Your task to perform on an android device: turn on the 24-hour format for clock Image 0: 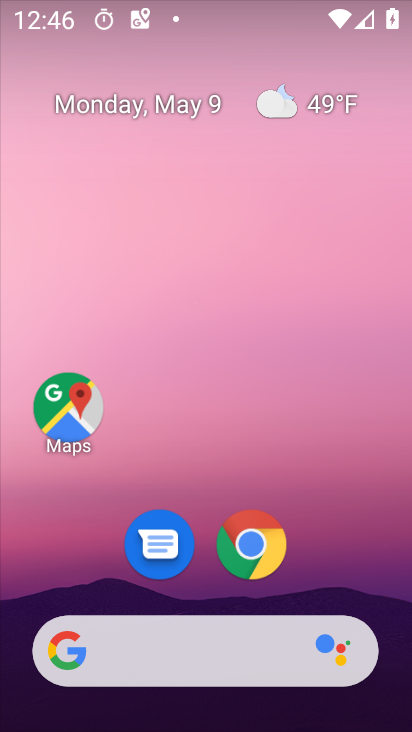
Step 0: drag from (343, 607) to (276, 18)
Your task to perform on an android device: turn on the 24-hour format for clock Image 1: 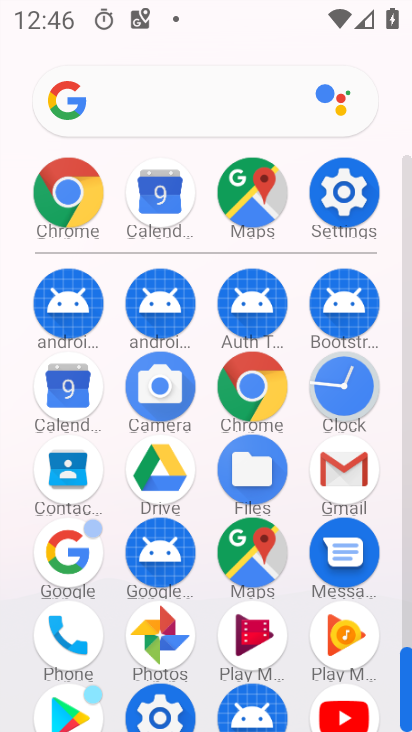
Step 1: click (355, 458)
Your task to perform on an android device: turn on the 24-hour format for clock Image 2: 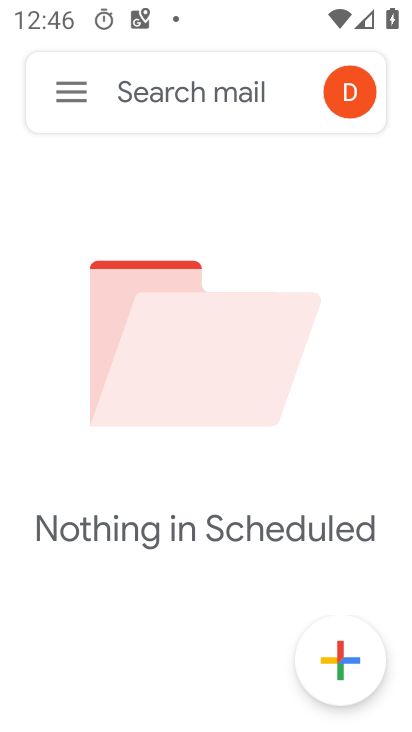
Step 2: press home button
Your task to perform on an android device: turn on the 24-hour format for clock Image 3: 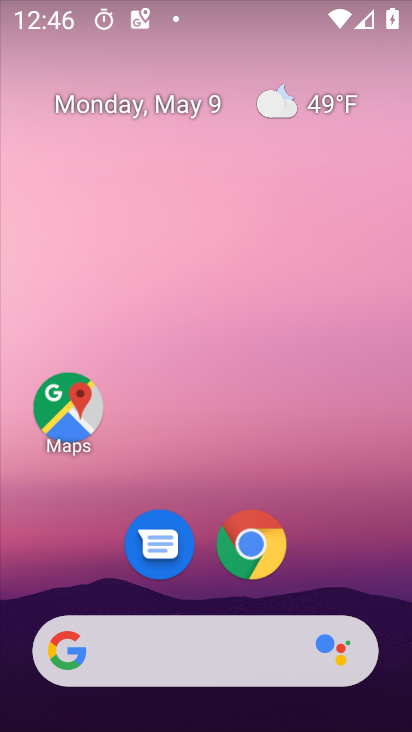
Step 3: drag from (271, 620) to (297, 25)
Your task to perform on an android device: turn on the 24-hour format for clock Image 4: 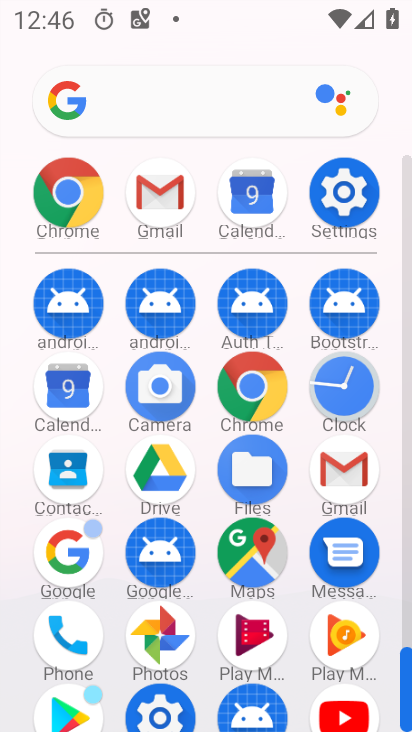
Step 4: click (356, 401)
Your task to perform on an android device: turn on the 24-hour format for clock Image 5: 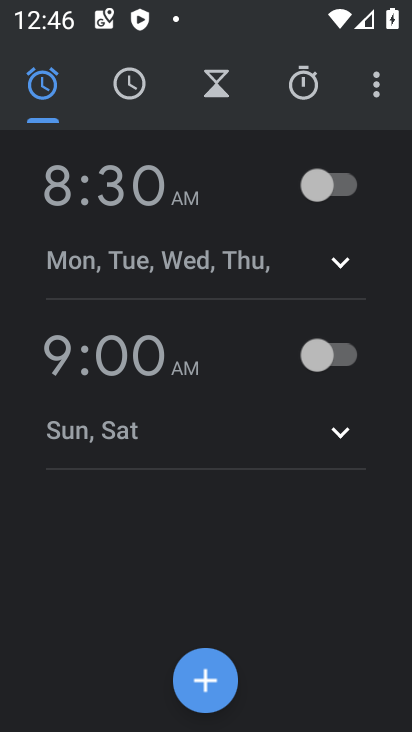
Step 5: click (378, 72)
Your task to perform on an android device: turn on the 24-hour format for clock Image 6: 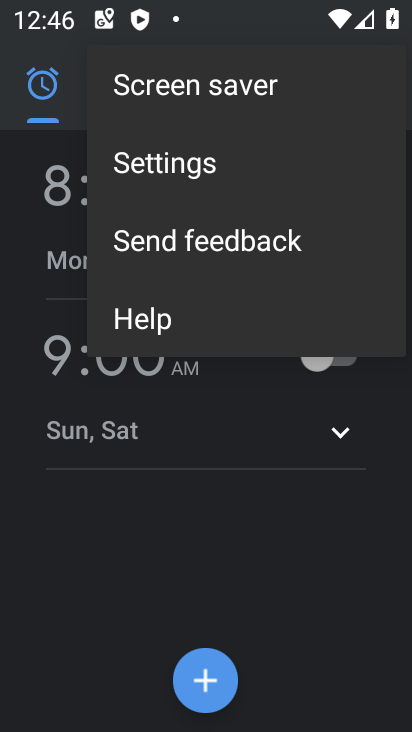
Step 6: click (207, 157)
Your task to perform on an android device: turn on the 24-hour format for clock Image 7: 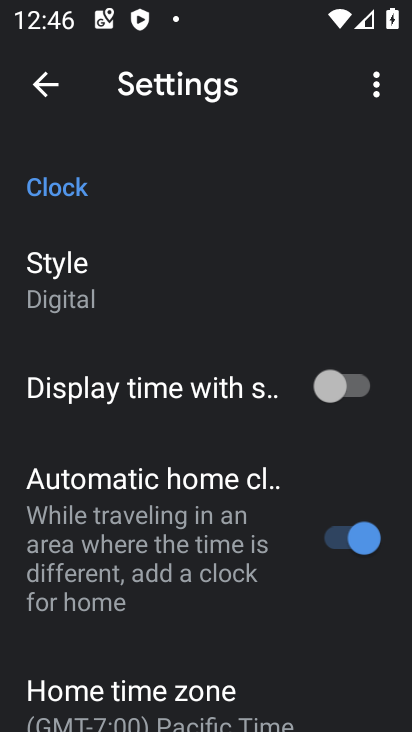
Step 7: drag from (375, 86) to (280, 296)
Your task to perform on an android device: turn on the 24-hour format for clock Image 8: 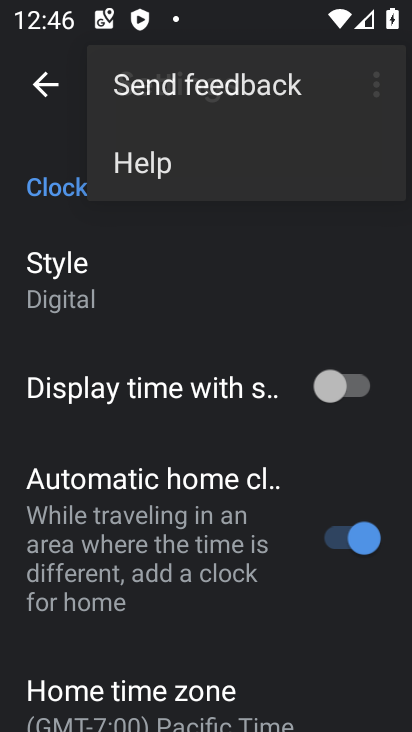
Step 8: click (245, 299)
Your task to perform on an android device: turn on the 24-hour format for clock Image 9: 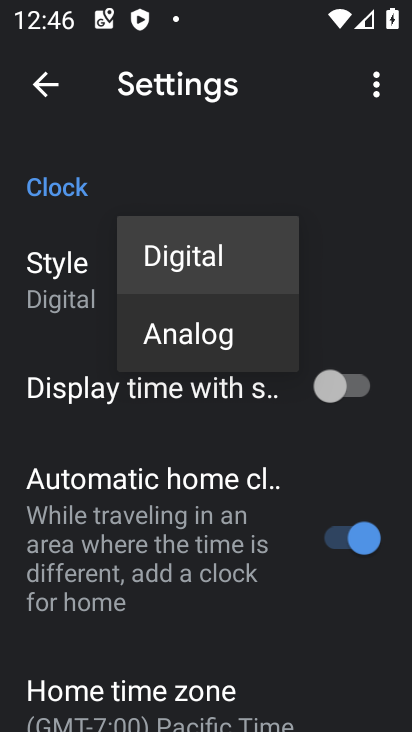
Step 9: click (362, 235)
Your task to perform on an android device: turn on the 24-hour format for clock Image 10: 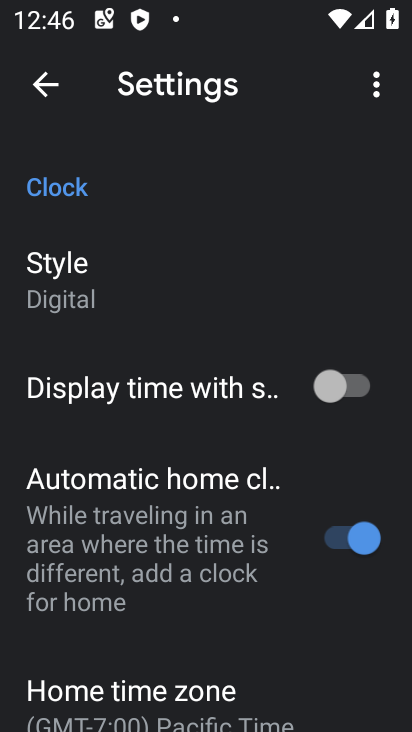
Step 10: drag from (205, 624) to (218, 81)
Your task to perform on an android device: turn on the 24-hour format for clock Image 11: 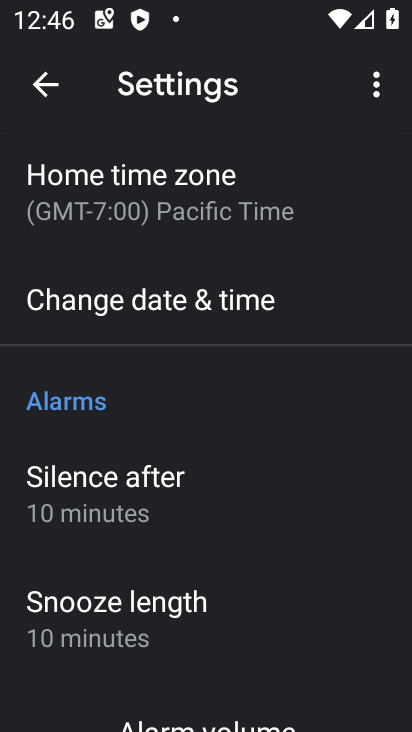
Step 11: click (176, 311)
Your task to perform on an android device: turn on the 24-hour format for clock Image 12: 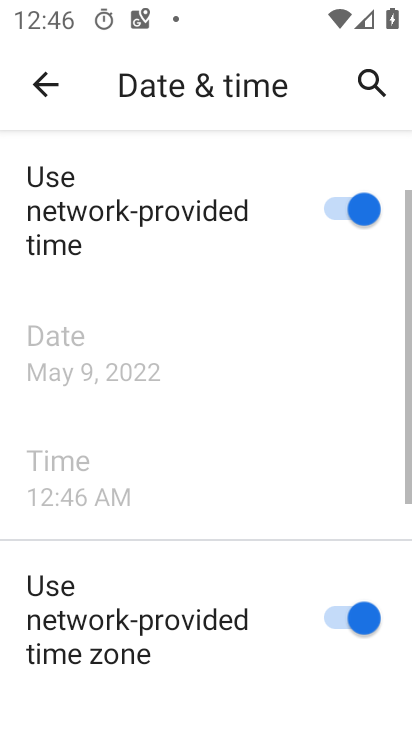
Step 12: drag from (308, 643) to (199, 1)
Your task to perform on an android device: turn on the 24-hour format for clock Image 13: 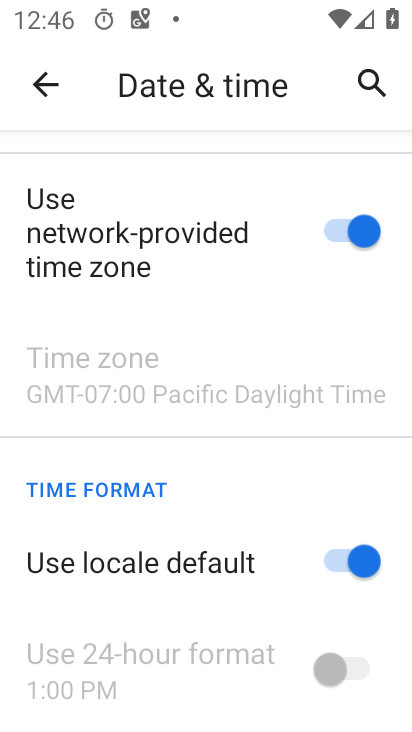
Step 13: drag from (253, 569) to (197, 73)
Your task to perform on an android device: turn on the 24-hour format for clock Image 14: 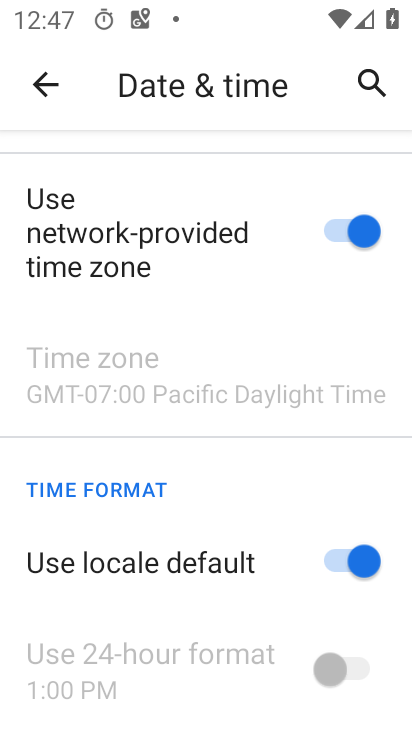
Step 14: click (330, 557)
Your task to perform on an android device: turn on the 24-hour format for clock Image 15: 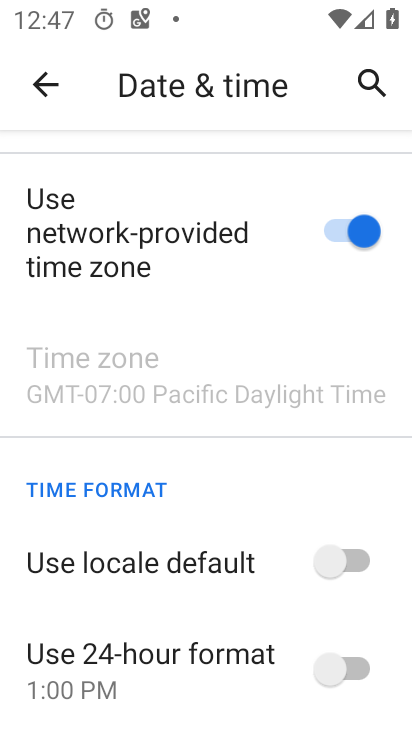
Step 15: click (349, 659)
Your task to perform on an android device: turn on the 24-hour format for clock Image 16: 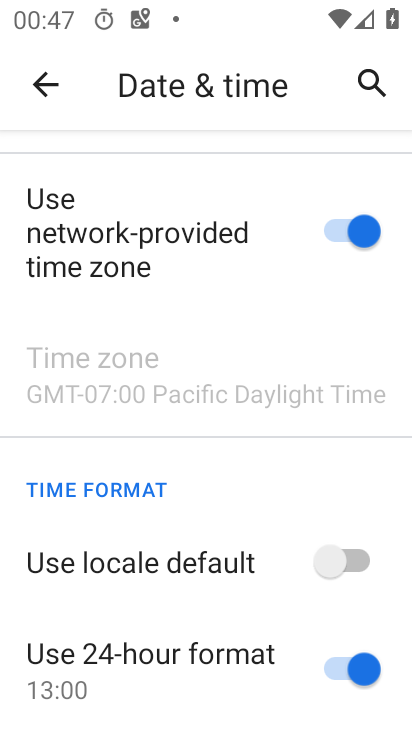
Step 16: task complete